Your task to perform on an android device: visit the assistant section in the google photos Image 0: 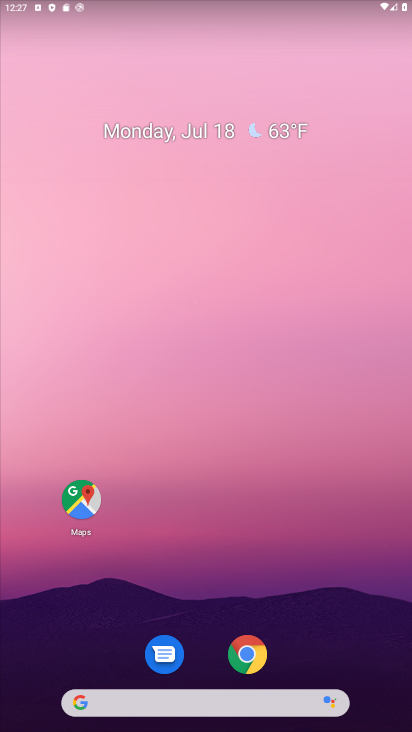
Step 0: drag from (225, 615) to (292, 205)
Your task to perform on an android device: visit the assistant section in the google photos Image 1: 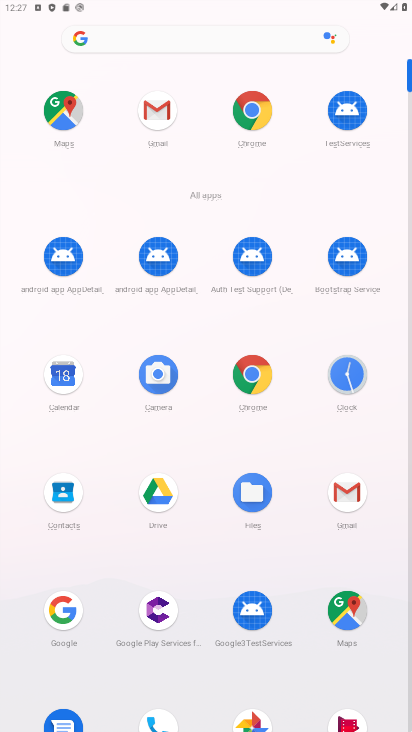
Step 1: drag from (182, 568) to (203, 368)
Your task to perform on an android device: visit the assistant section in the google photos Image 2: 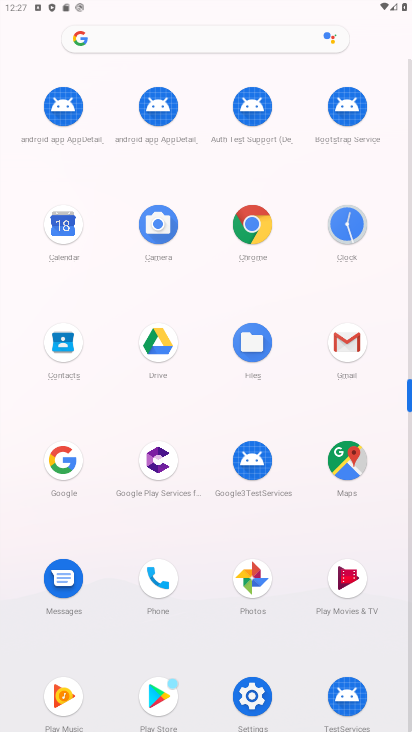
Step 2: click (268, 593)
Your task to perform on an android device: visit the assistant section in the google photos Image 3: 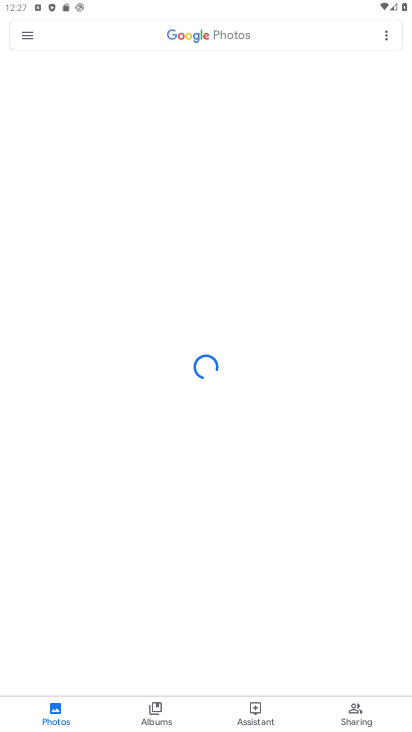
Step 3: click (267, 710)
Your task to perform on an android device: visit the assistant section in the google photos Image 4: 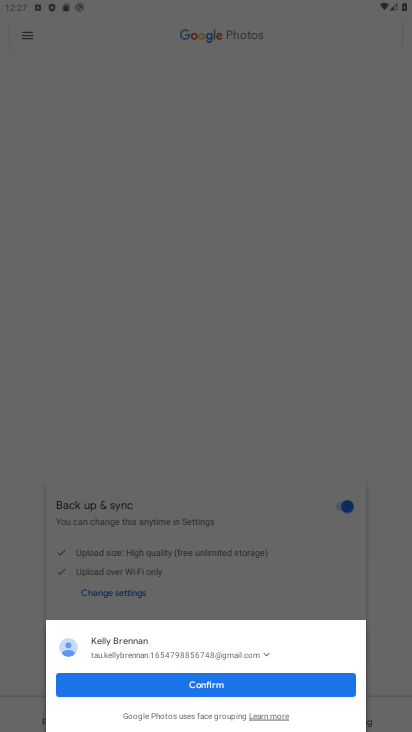
Step 4: click (256, 685)
Your task to perform on an android device: visit the assistant section in the google photos Image 5: 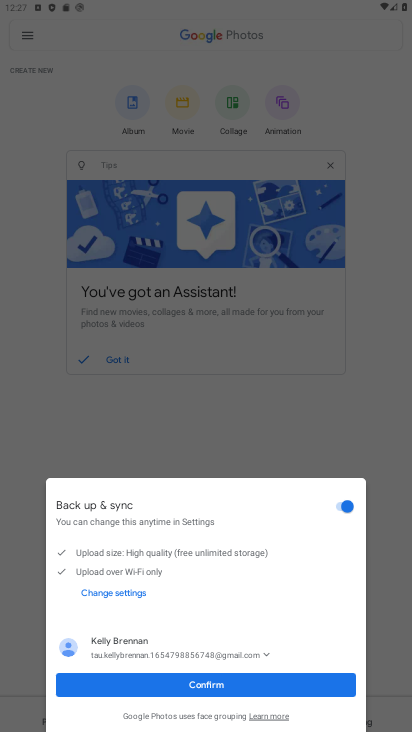
Step 5: click (256, 685)
Your task to perform on an android device: visit the assistant section in the google photos Image 6: 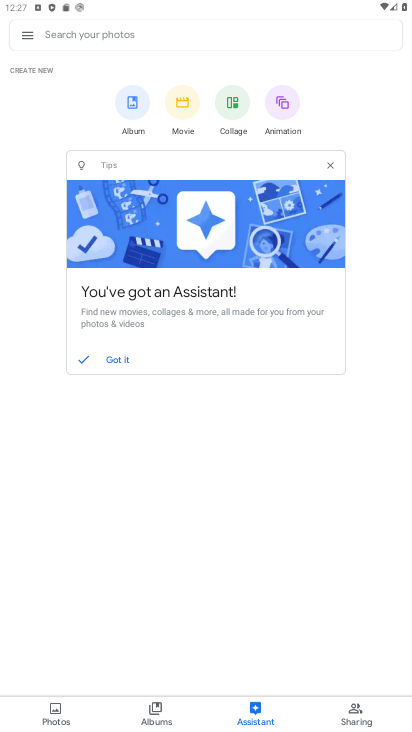
Step 6: task complete